Your task to perform on an android device: Search for pizza restaurants on Maps Image 0: 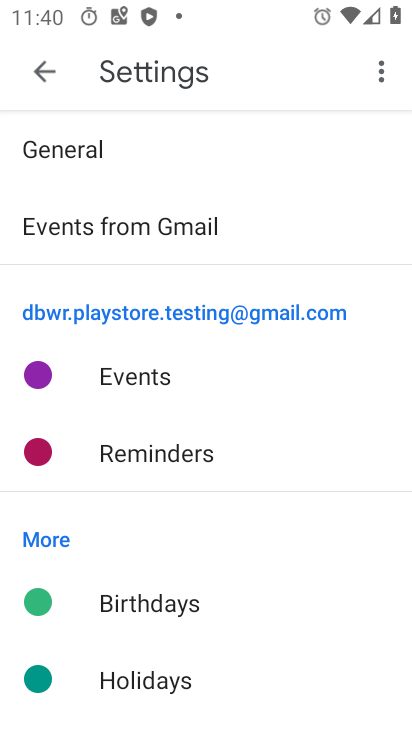
Step 0: press home button
Your task to perform on an android device: Search for pizza restaurants on Maps Image 1: 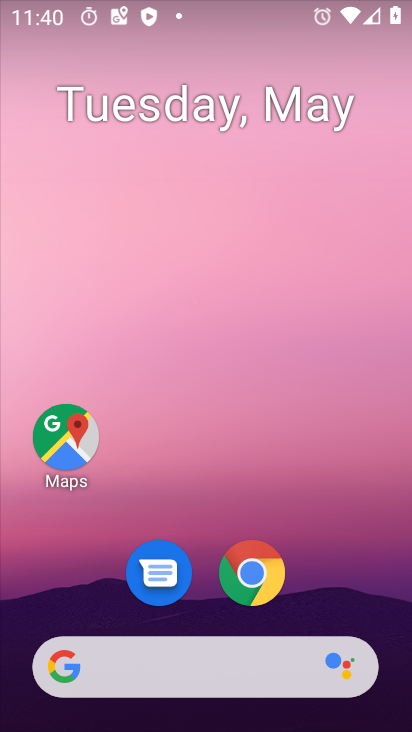
Step 1: drag from (223, 692) to (339, 244)
Your task to perform on an android device: Search for pizza restaurants on Maps Image 2: 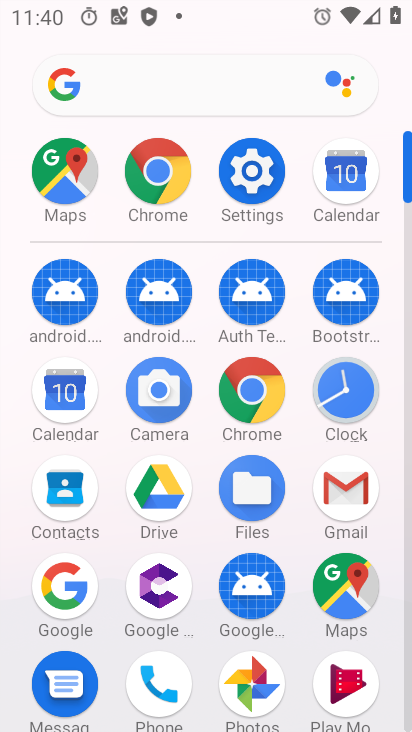
Step 2: click (92, 198)
Your task to perform on an android device: Search for pizza restaurants on Maps Image 3: 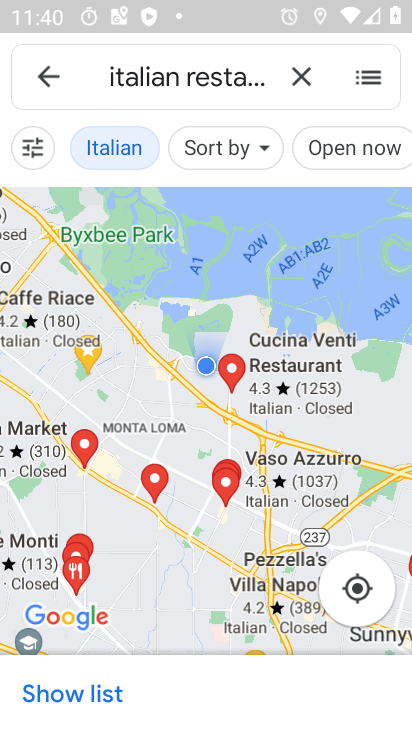
Step 3: click (293, 75)
Your task to perform on an android device: Search for pizza restaurants on Maps Image 4: 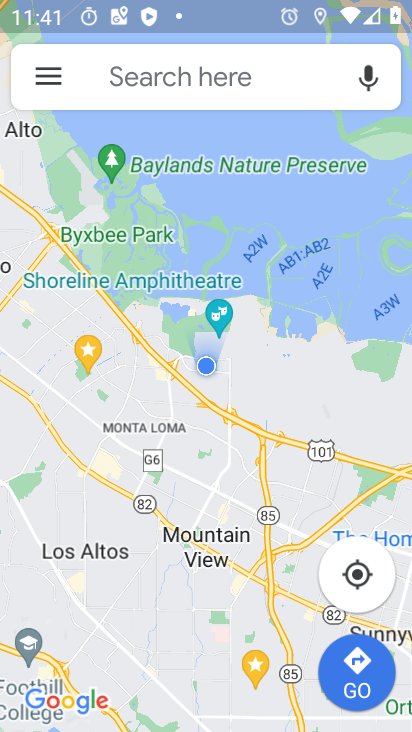
Step 4: click (244, 85)
Your task to perform on an android device: Search for pizza restaurants on Maps Image 5: 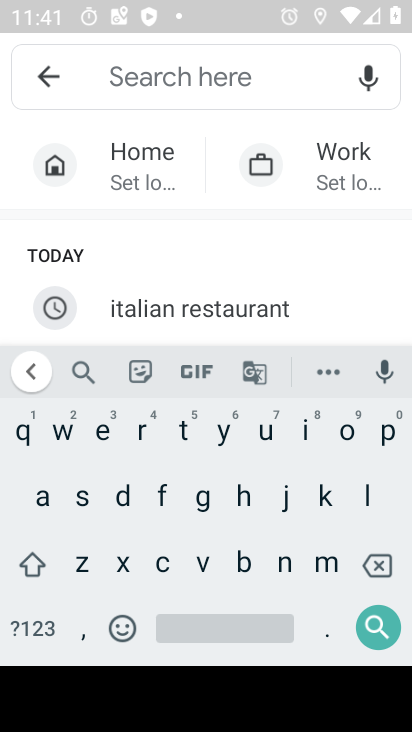
Step 5: click (382, 437)
Your task to perform on an android device: Search for pizza restaurants on Maps Image 6: 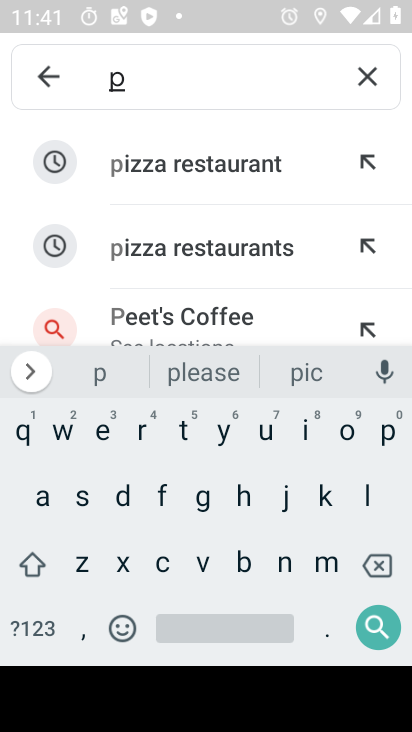
Step 6: click (208, 184)
Your task to perform on an android device: Search for pizza restaurants on Maps Image 7: 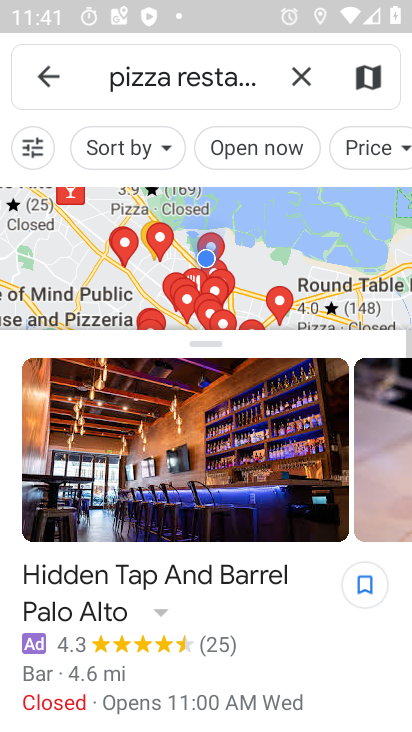
Step 7: click (138, 286)
Your task to perform on an android device: Search for pizza restaurants on Maps Image 8: 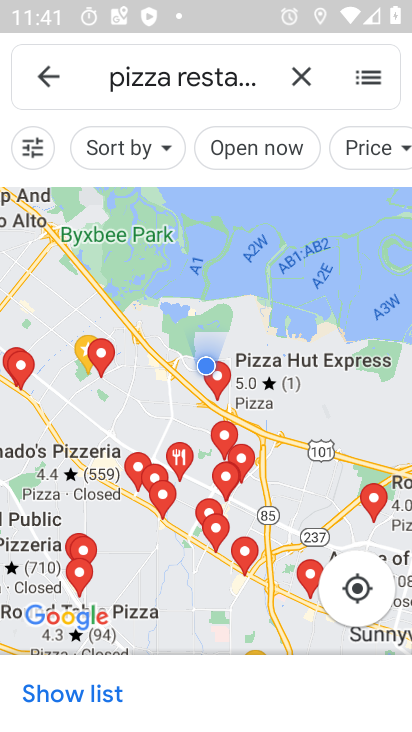
Step 8: task complete